Your task to perform on an android device: Is it going to rain today? Image 0: 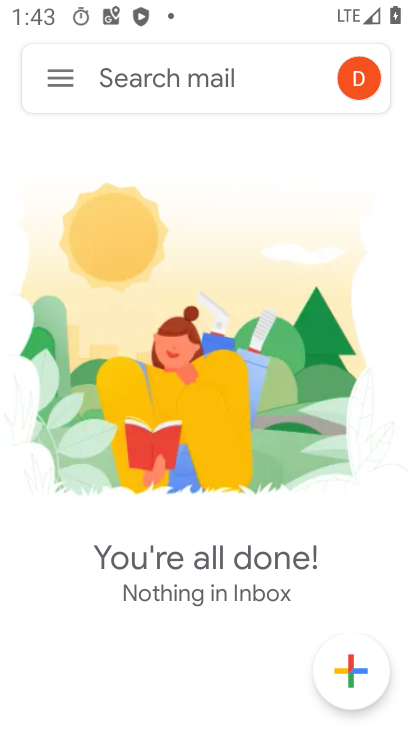
Step 0: press back button
Your task to perform on an android device: Is it going to rain today? Image 1: 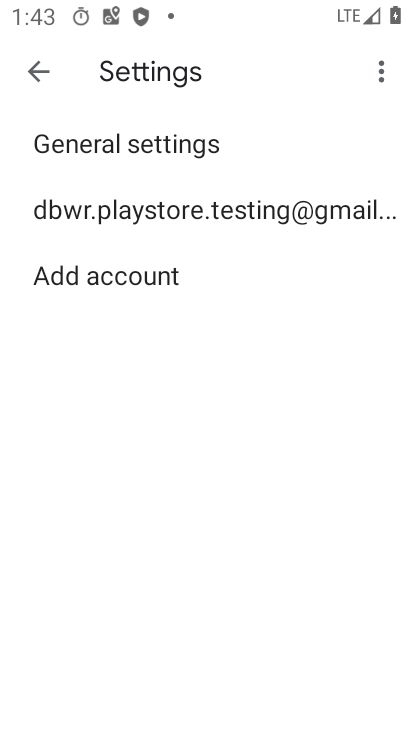
Step 1: press back button
Your task to perform on an android device: Is it going to rain today? Image 2: 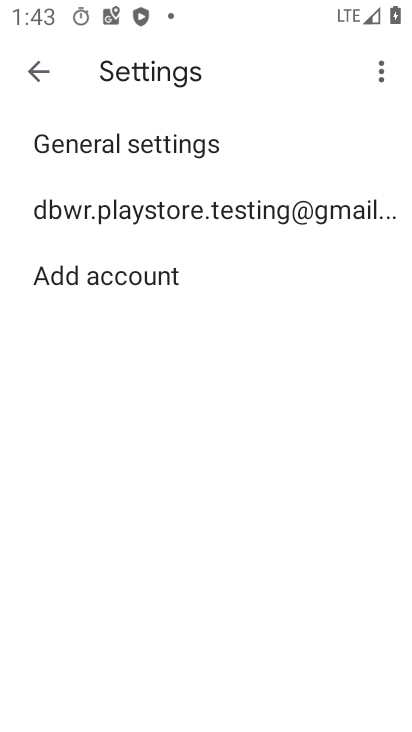
Step 2: press home button
Your task to perform on an android device: Is it going to rain today? Image 3: 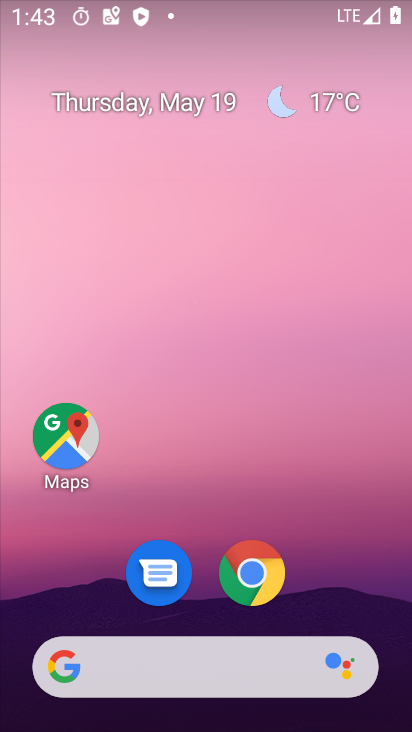
Step 3: click (278, 103)
Your task to perform on an android device: Is it going to rain today? Image 4: 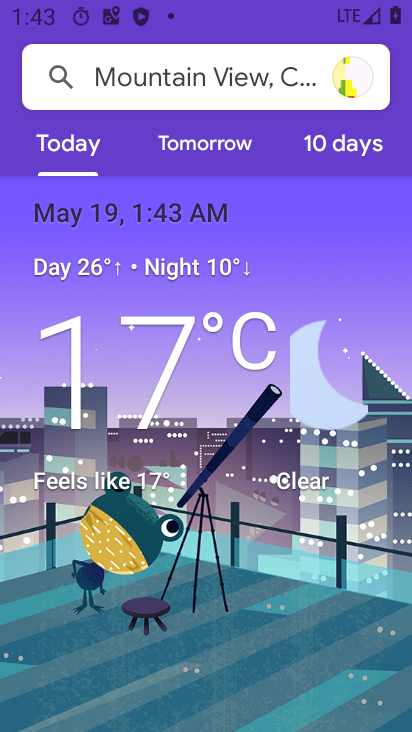
Step 4: task complete